Your task to perform on an android device: turn on showing notifications on the lock screen Image 0: 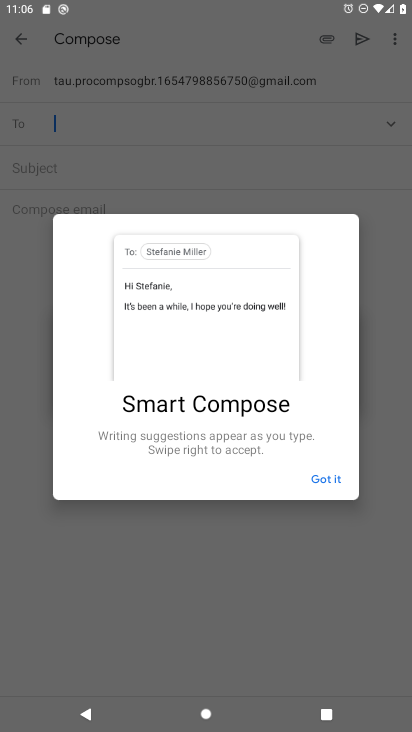
Step 0: press home button
Your task to perform on an android device: turn on showing notifications on the lock screen Image 1: 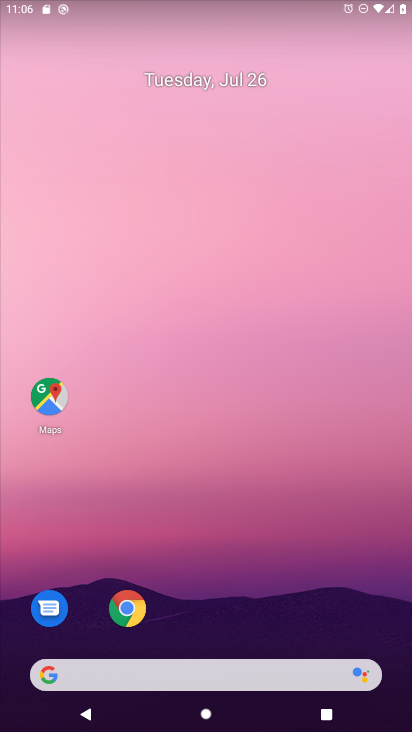
Step 1: drag from (229, 494) to (186, 57)
Your task to perform on an android device: turn on showing notifications on the lock screen Image 2: 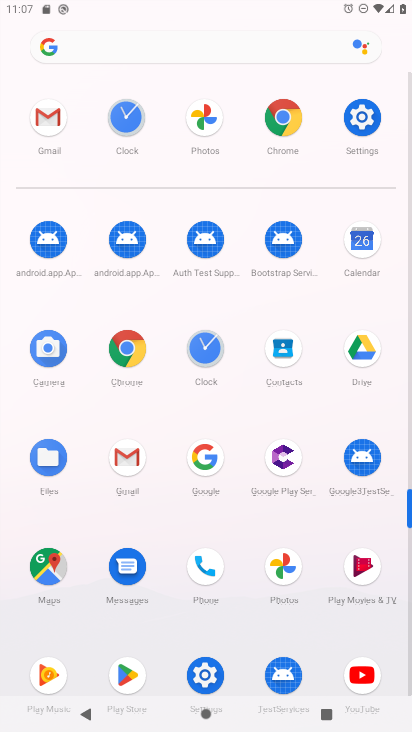
Step 2: click (368, 119)
Your task to perform on an android device: turn on showing notifications on the lock screen Image 3: 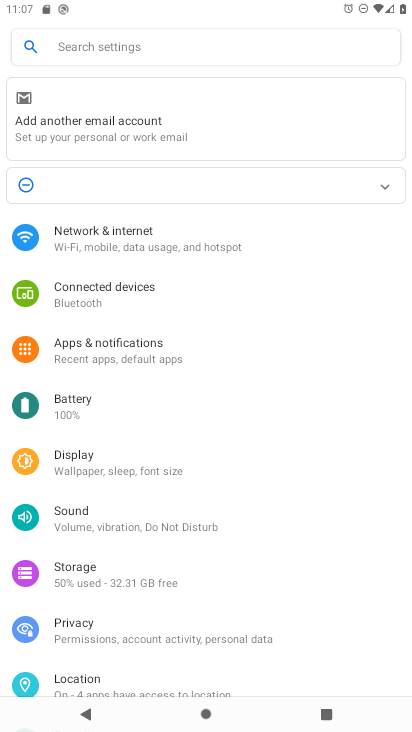
Step 3: click (149, 351)
Your task to perform on an android device: turn on showing notifications on the lock screen Image 4: 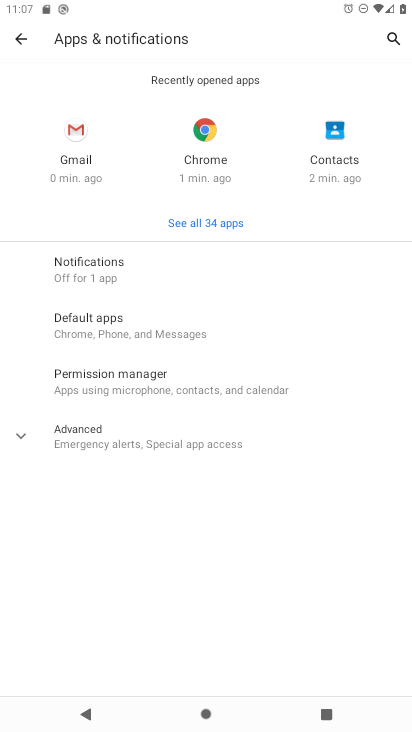
Step 4: click (108, 272)
Your task to perform on an android device: turn on showing notifications on the lock screen Image 5: 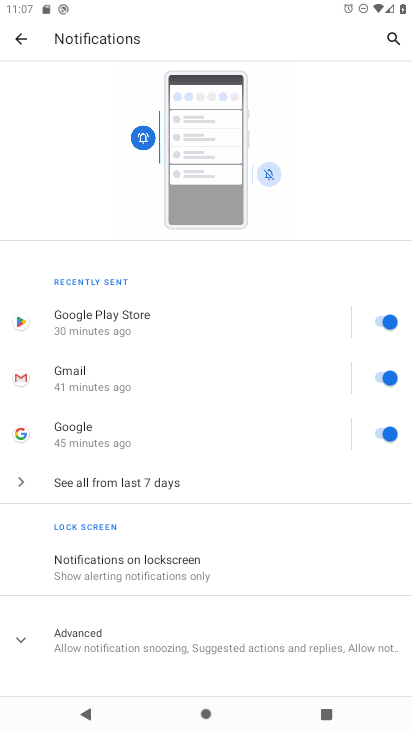
Step 5: click (175, 571)
Your task to perform on an android device: turn on showing notifications on the lock screen Image 6: 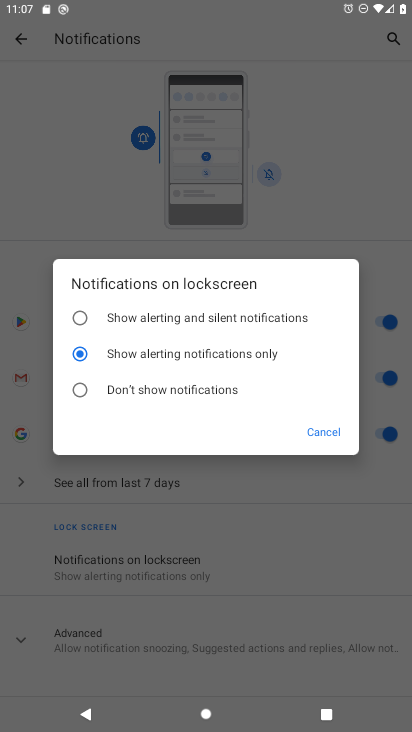
Step 6: task complete